Your task to perform on an android device: delete location history Image 0: 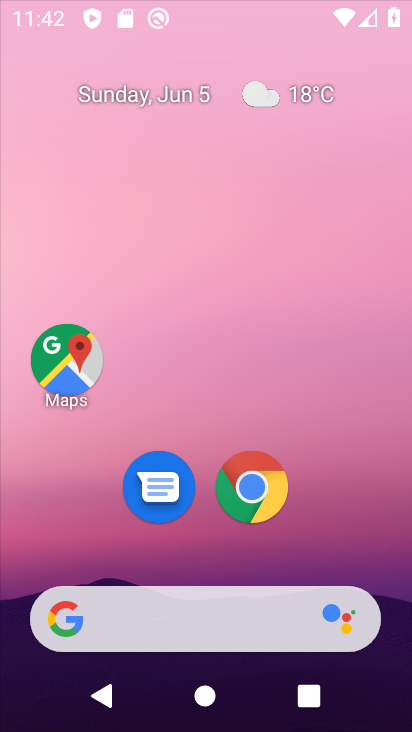
Step 0: drag from (353, 548) to (365, 211)
Your task to perform on an android device: delete location history Image 1: 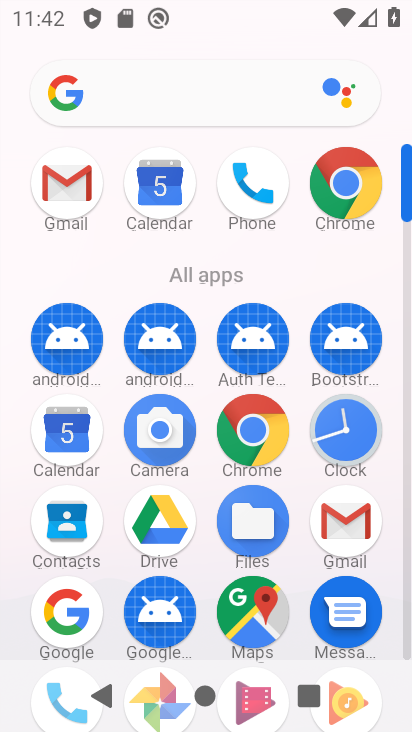
Step 1: drag from (271, 698) to (351, 348)
Your task to perform on an android device: delete location history Image 2: 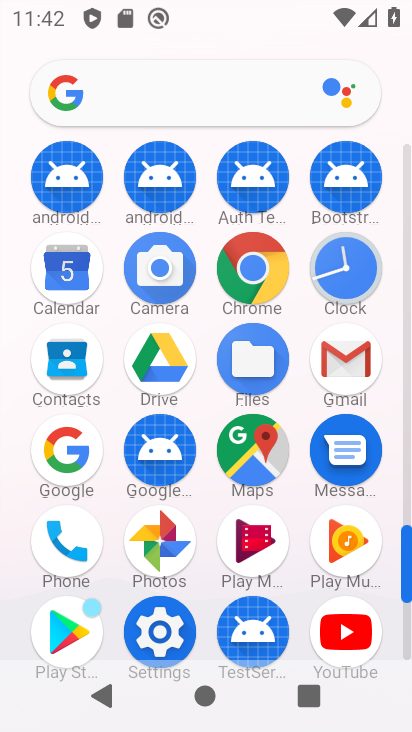
Step 2: click (132, 638)
Your task to perform on an android device: delete location history Image 3: 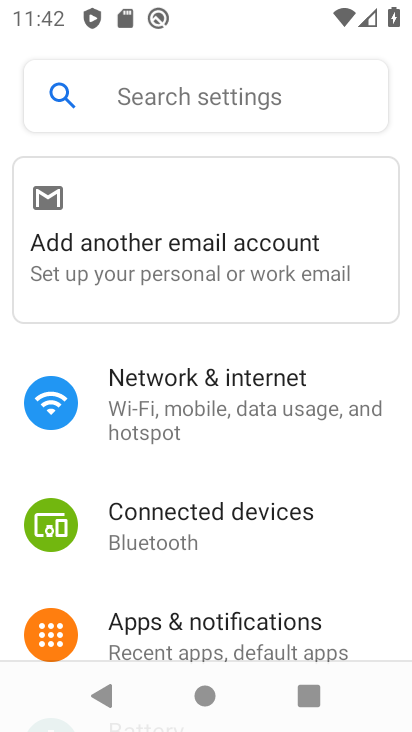
Step 3: drag from (304, 489) to (309, 221)
Your task to perform on an android device: delete location history Image 4: 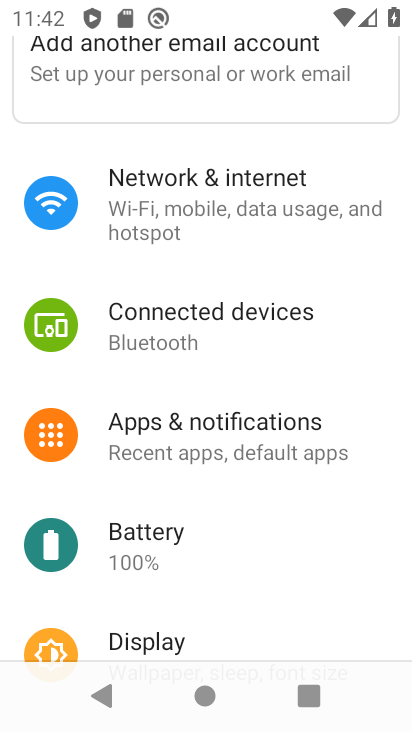
Step 4: drag from (257, 584) to (288, 79)
Your task to perform on an android device: delete location history Image 5: 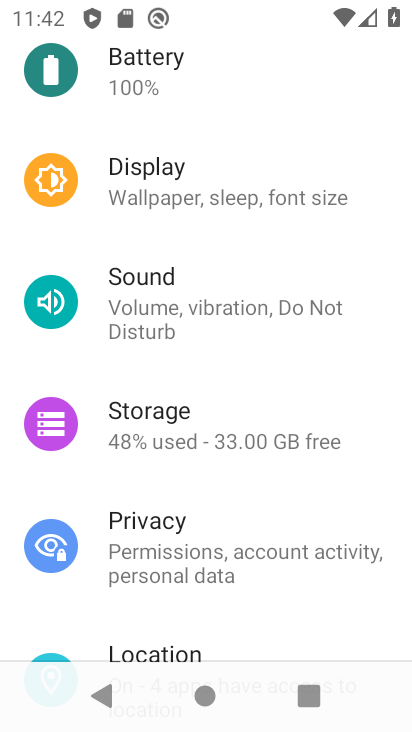
Step 5: drag from (242, 542) to (230, 146)
Your task to perform on an android device: delete location history Image 6: 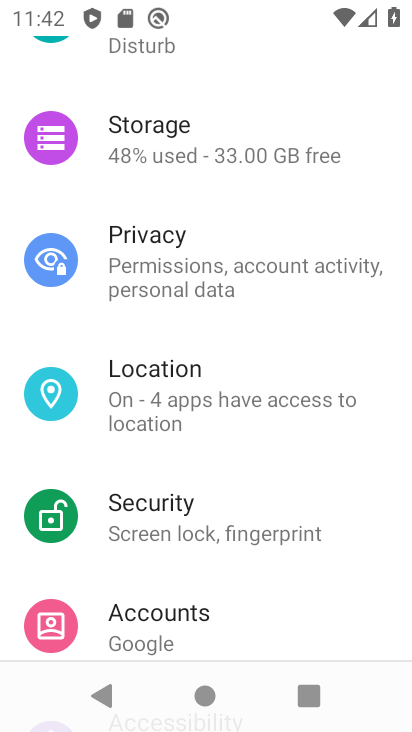
Step 6: click (184, 399)
Your task to perform on an android device: delete location history Image 7: 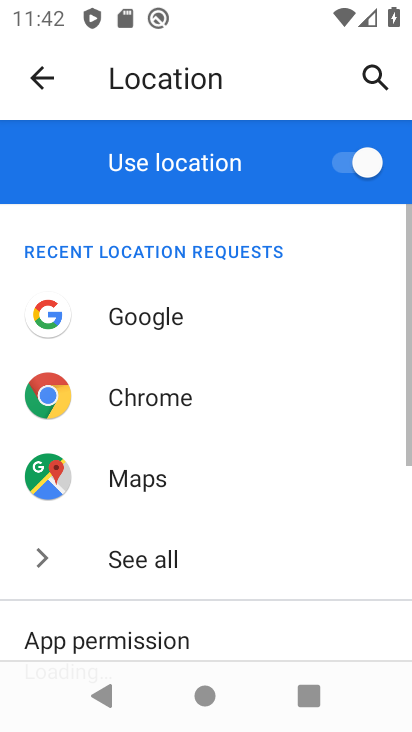
Step 7: drag from (204, 593) to (226, 199)
Your task to perform on an android device: delete location history Image 8: 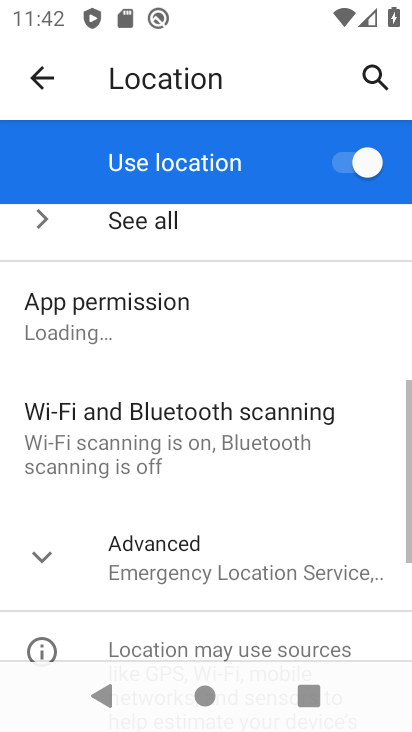
Step 8: drag from (214, 581) to (282, 256)
Your task to perform on an android device: delete location history Image 9: 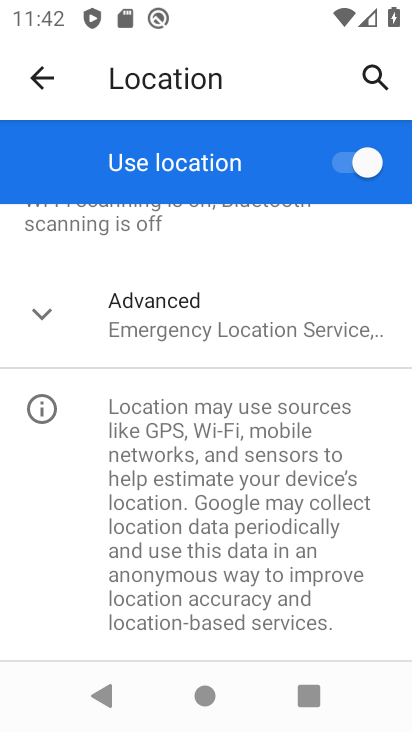
Step 9: drag from (232, 563) to (273, 294)
Your task to perform on an android device: delete location history Image 10: 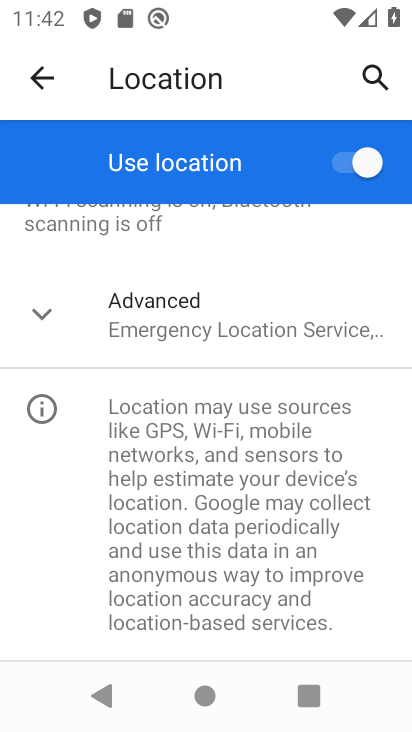
Step 10: click (234, 312)
Your task to perform on an android device: delete location history Image 11: 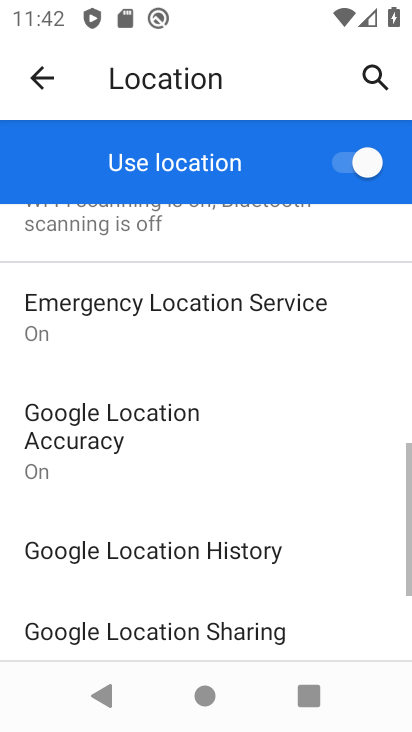
Step 11: drag from (209, 518) to (238, 344)
Your task to perform on an android device: delete location history Image 12: 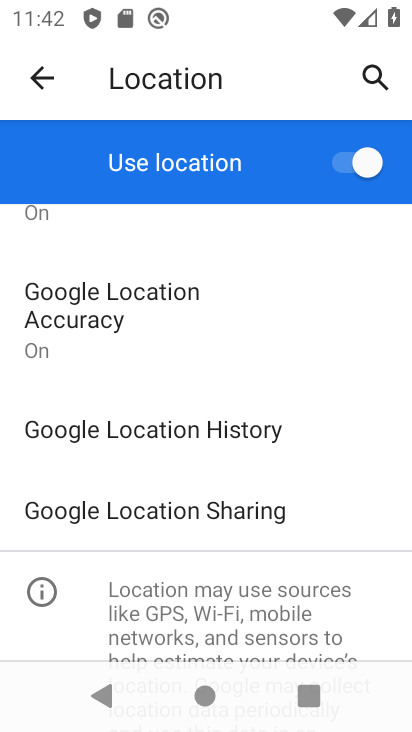
Step 12: click (222, 423)
Your task to perform on an android device: delete location history Image 13: 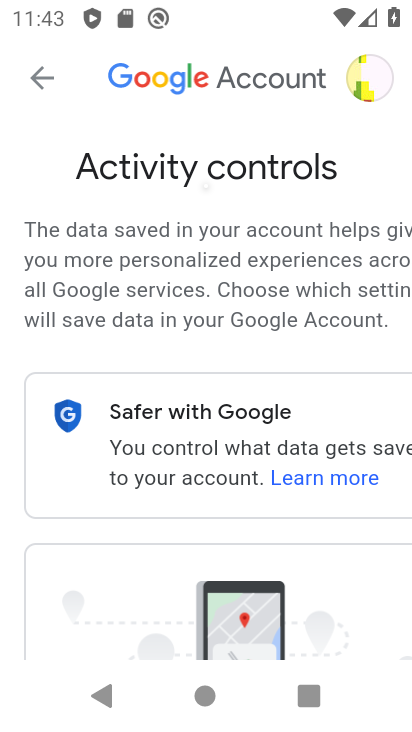
Step 13: drag from (116, 545) to (215, 246)
Your task to perform on an android device: delete location history Image 14: 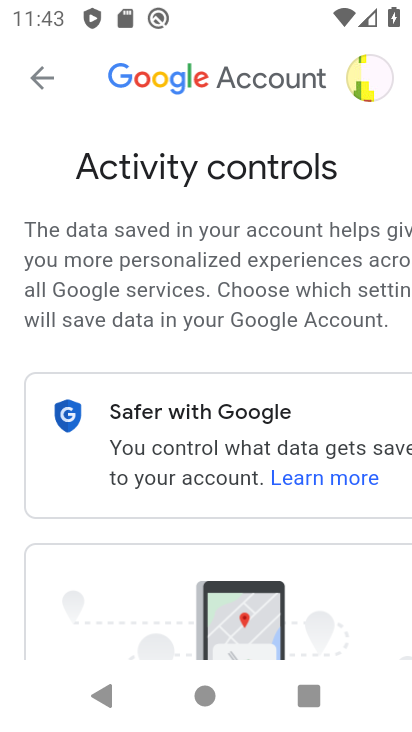
Step 14: drag from (51, 587) to (202, 303)
Your task to perform on an android device: delete location history Image 15: 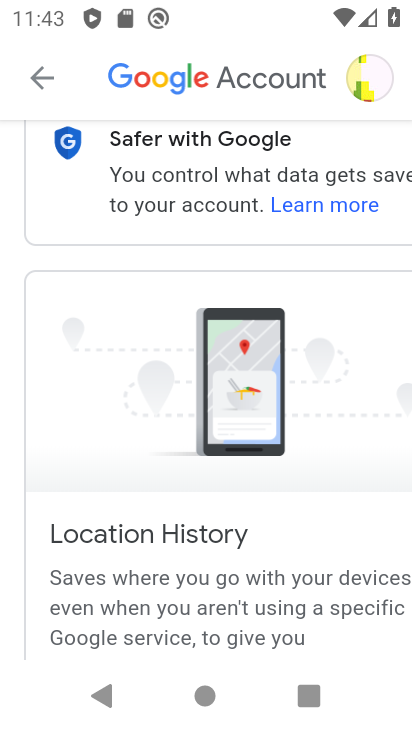
Step 15: drag from (111, 334) to (138, 254)
Your task to perform on an android device: delete location history Image 16: 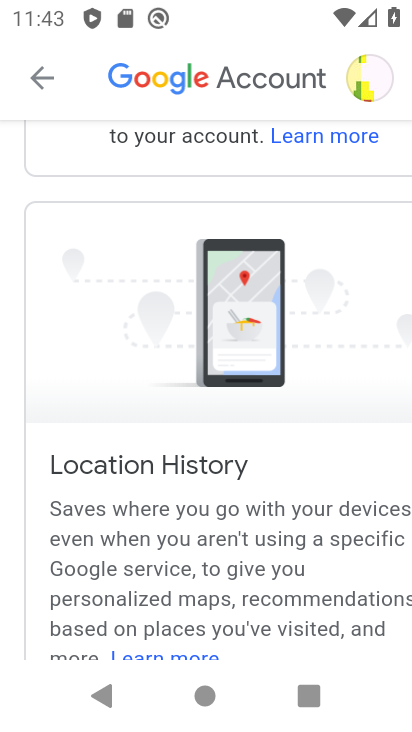
Step 16: drag from (70, 585) to (155, 241)
Your task to perform on an android device: delete location history Image 17: 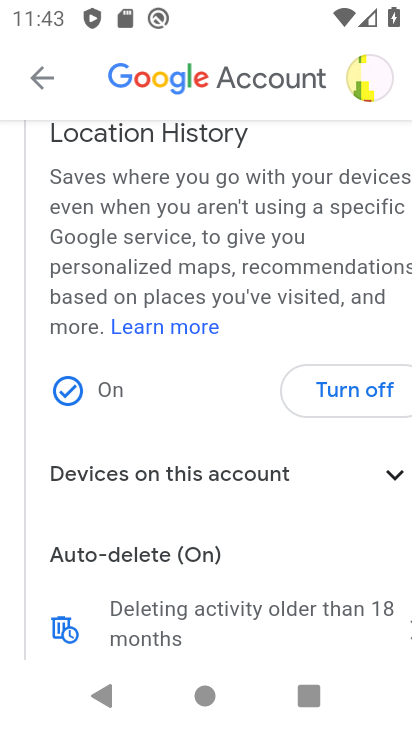
Step 17: drag from (310, 571) to (249, 245)
Your task to perform on an android device: delete location history Image 18: 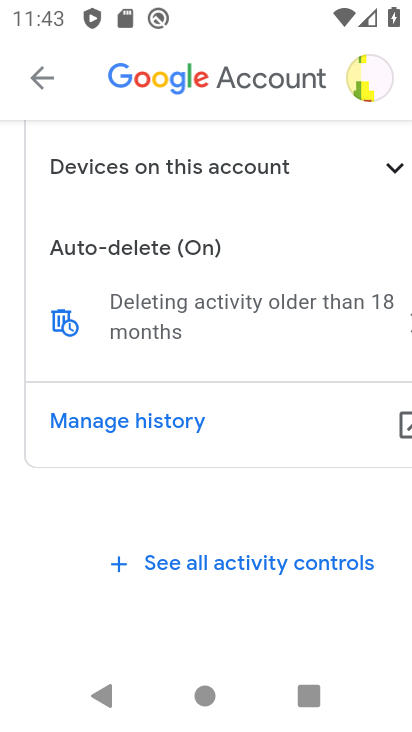
Step 18: drag from (261, 291) to (262, 503)
Your task to perform on an android device: delete location history Image 19: 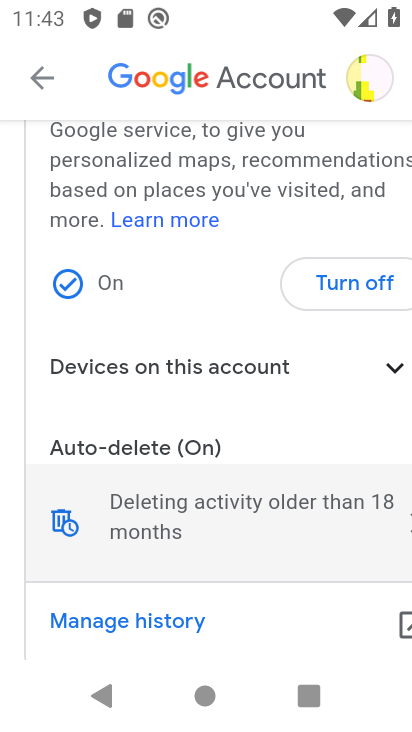
Step 19: drag from (252, 556) to (258, 302)
Your task to perform on an android device: delete location history Image 20: 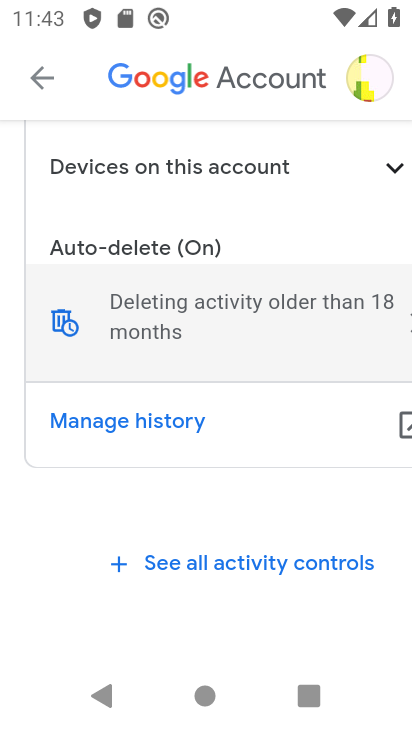
Step 20: click (120, 444)
Your task to perform on an android device: delete location history Image 21: 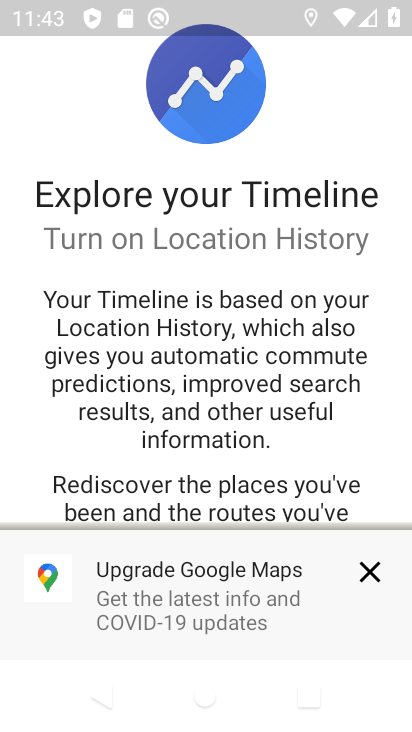
Step 21: click (376, 571)
Your task to perform on an android device: delete location history Image 22: 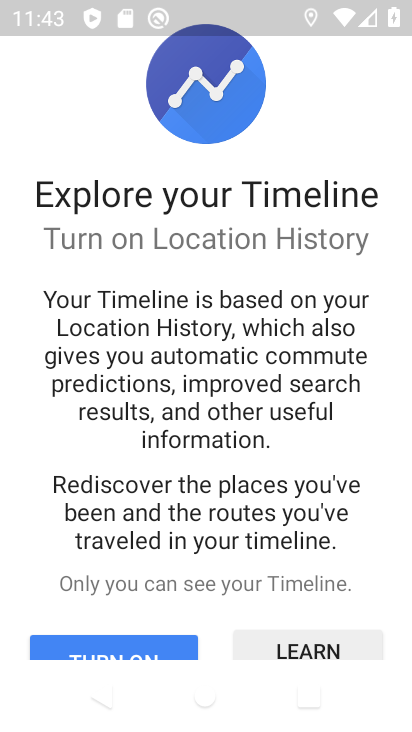
Step 22: drag from (336, 595) to (406, 246)
Your task to perform on an android device: delete location history Image 23: 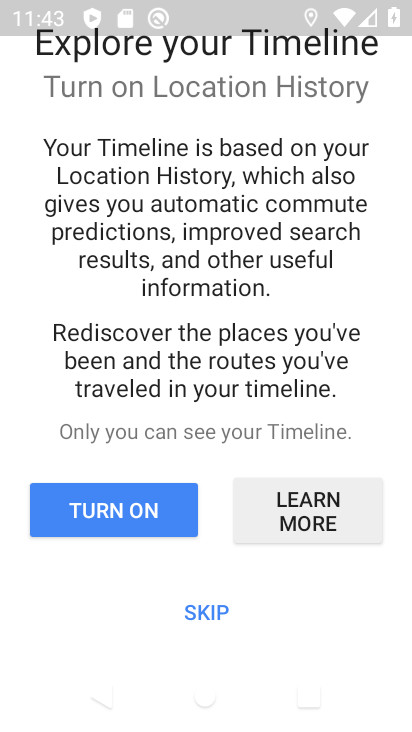
Step 23: click (213, 627)
Your task to perform on an android device: delete location history Image 24: 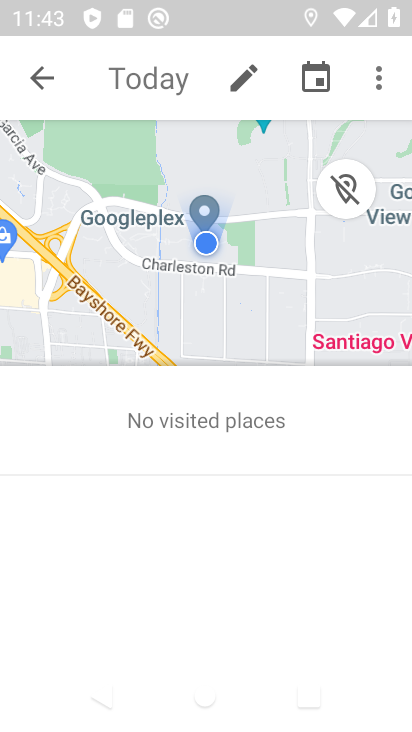
Step 24: click (386, 73)
Your task to perform on an android device: delete location history Image 25: 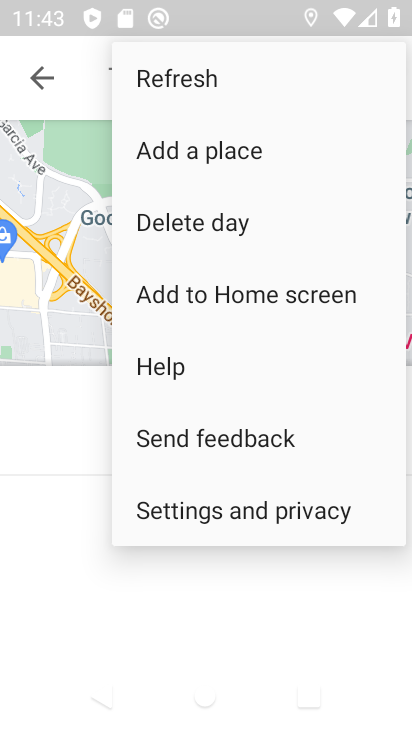
Step 25: click (181, 489)
Your task to perform on an android device: delete location history Image 26: 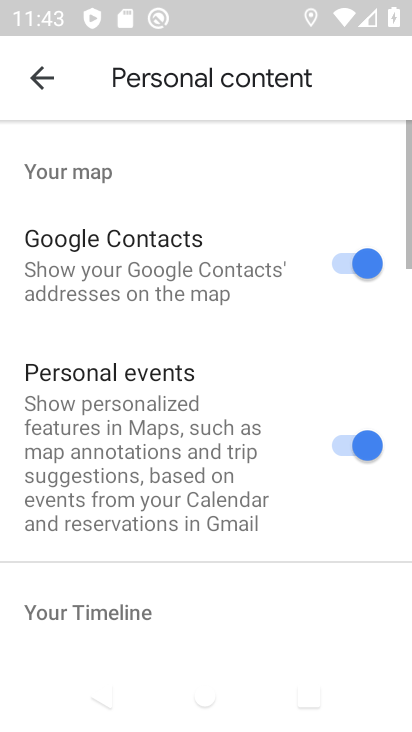
Step 26: drag from (211, 561) to (228, 134)
Your task to perform on an android device: delete location history Image 27: 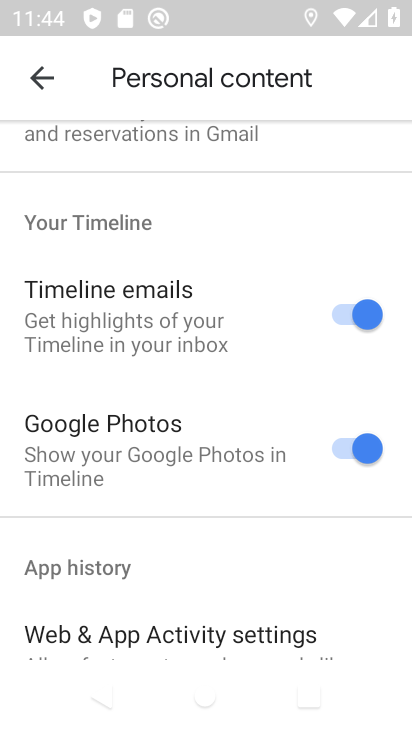
Step 27: drag from (203, 538) to (240, 186)
Your task to perform on an android device: delete location history Image 28: 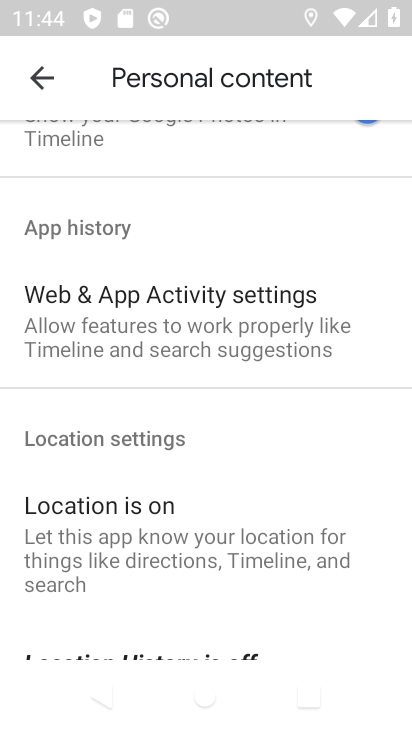
Step 28: drag from (221, 537) to (238, 178)
Your task to perform on an android device: delete location history Image 29: 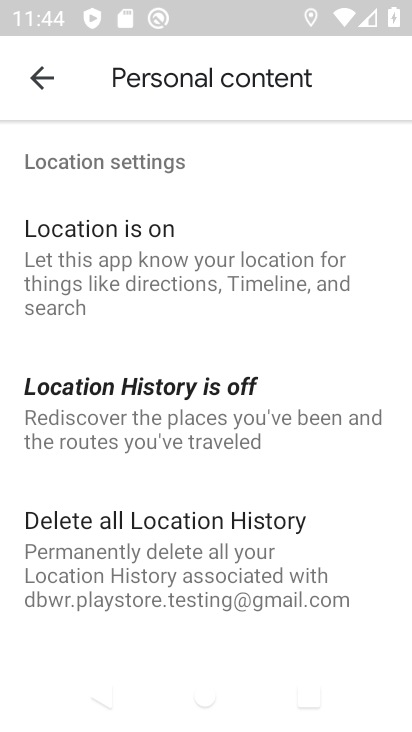
Step 29: click (180, 518)
Your task to perform on an android device: delete location history Image 30: 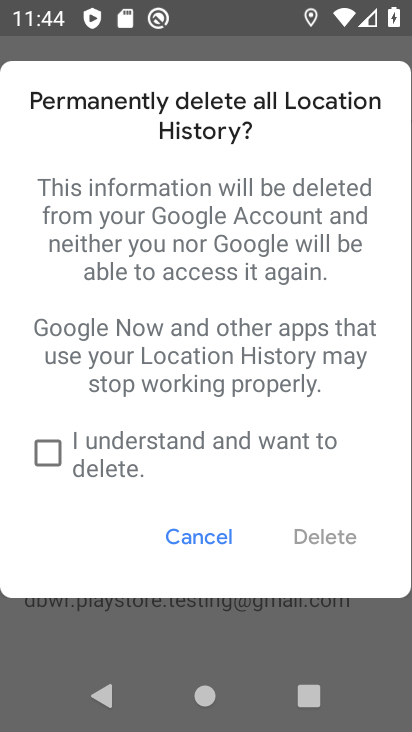
Step 30: click (30, 456)
Your task to perform on an android device: delete location history Image 31: 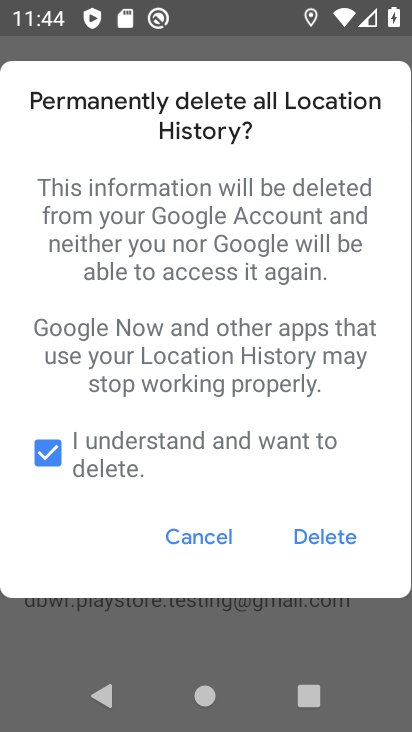
Step 31: click (303, 542)
Your task to perform on an android device: delete location history Image 32: 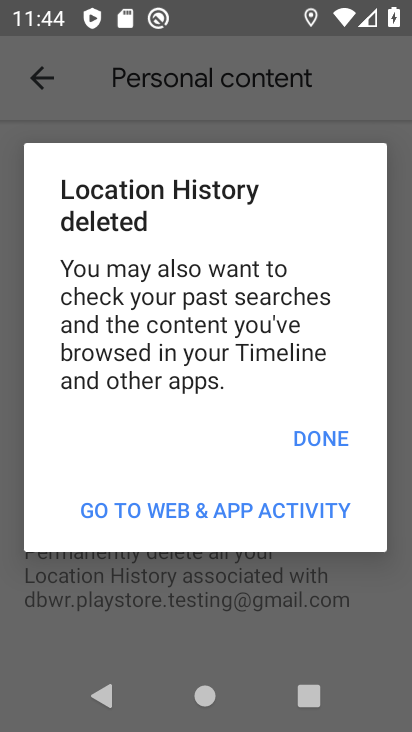
Step 32: click (296, 429)
Your task to perform on an android device: delete location history Image 33: 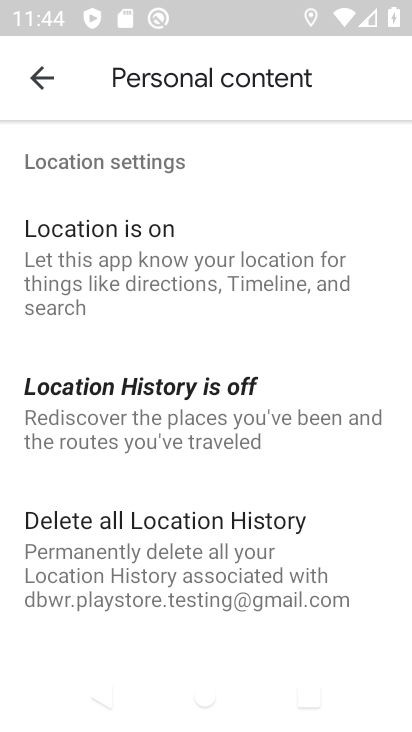
Step 33: task complete